Your task to perform on an android device: star an email in the gmail app Image 0: 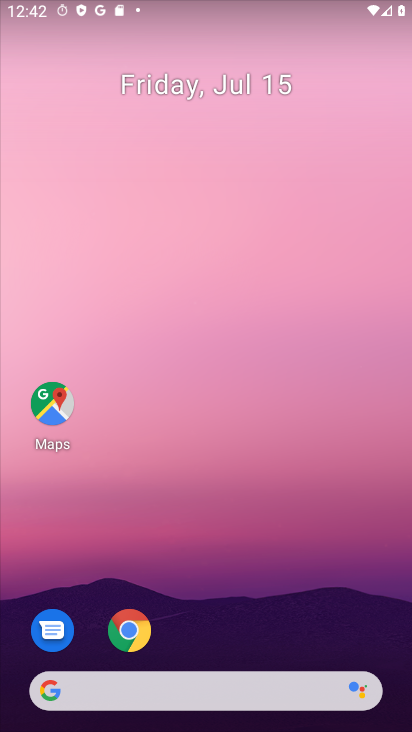
Step 0: drag from (176, 611) to (236, 127)
Your task to perform on an android device: star an email in the gmail app Image 1: 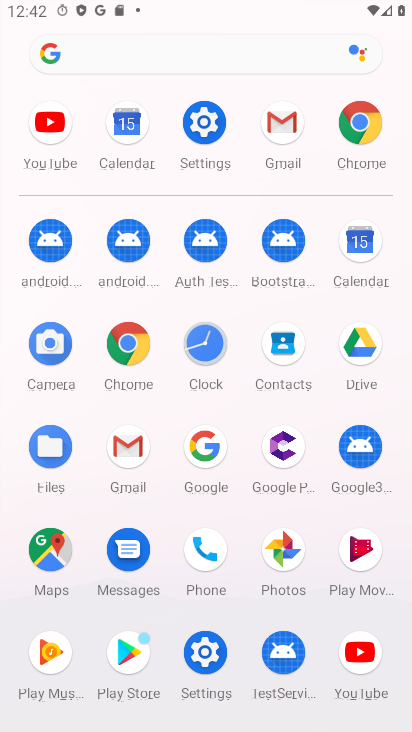
Step 1: drag from (247, 559) to (260, 253)
Your task to perform on an android device: star an email in the gmail app Image 2: 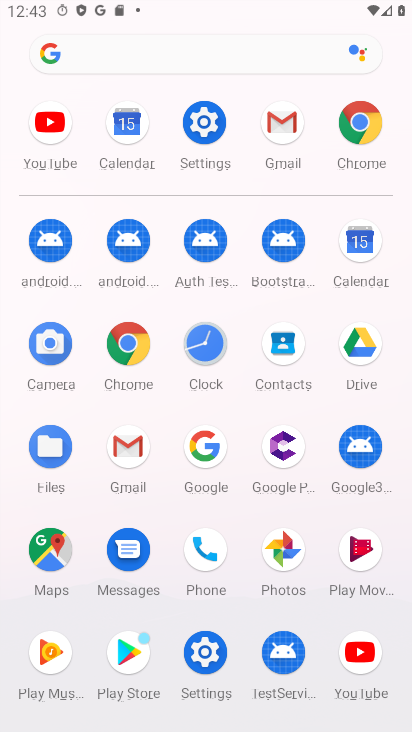
Step 2: drag from (248, 575) to (257, 147)
Your task to perform on an android device: star an email in the gmail app Image 3: 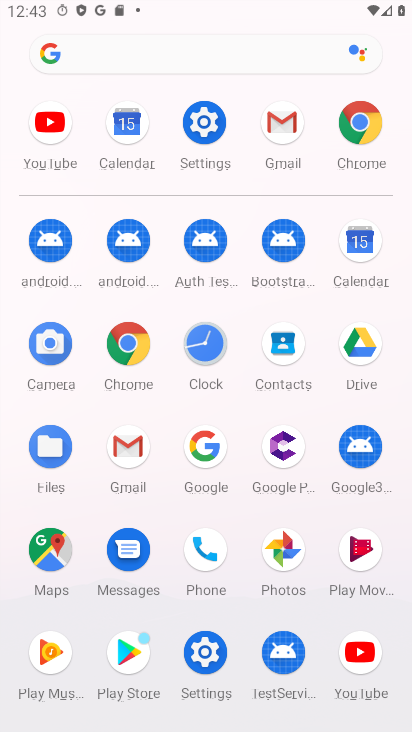
Step 3: click (137, 451)
Your task to perform on an android device: star an email in the gmail app Image 4: 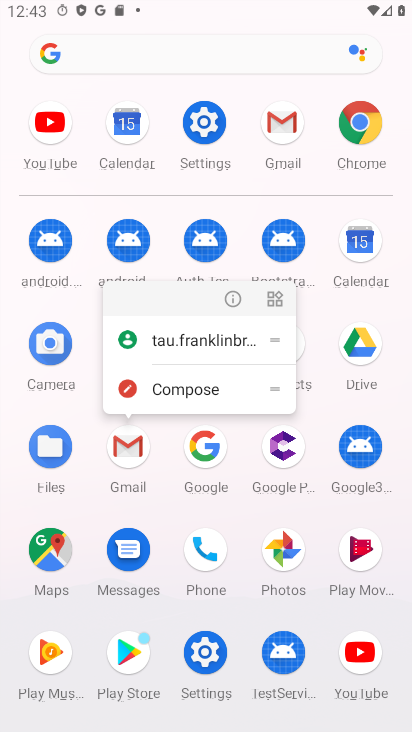
Step 4: click (230, 300)
Your task to perform on an android device: star an email in the gmail app Image 5: 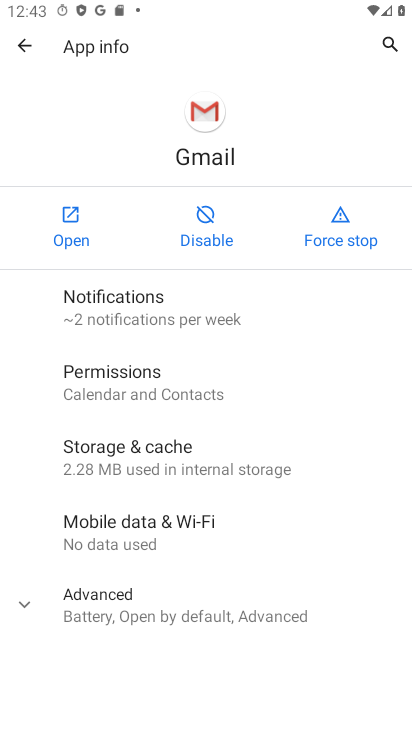
Step 5: click (76, 208)
Your task to perform on an android device: star an email in the gmail app Image 6: 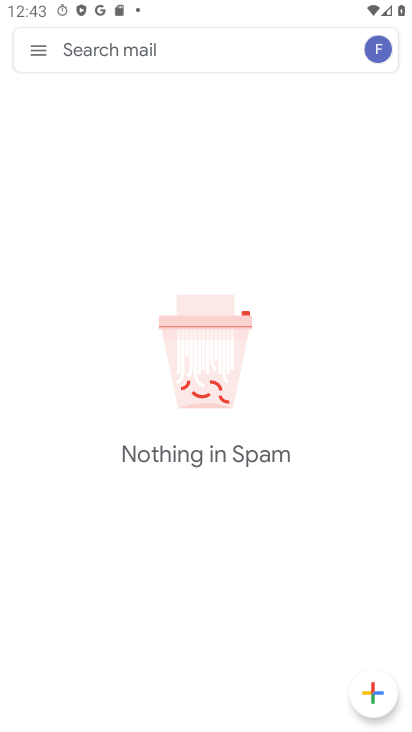
Step 6: task complete